Your task to perform on an android device: toggle sleep mode Image 0: 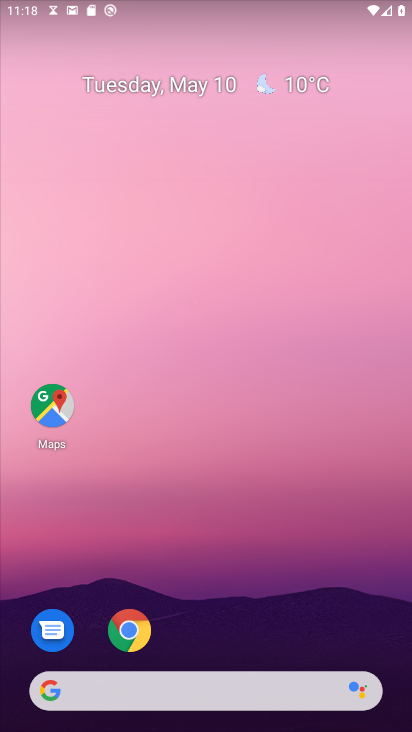
Step 0: drag from (221, 577) to (258, 56)
Your task to perform on an android device: toggle sleep mode Image 1: 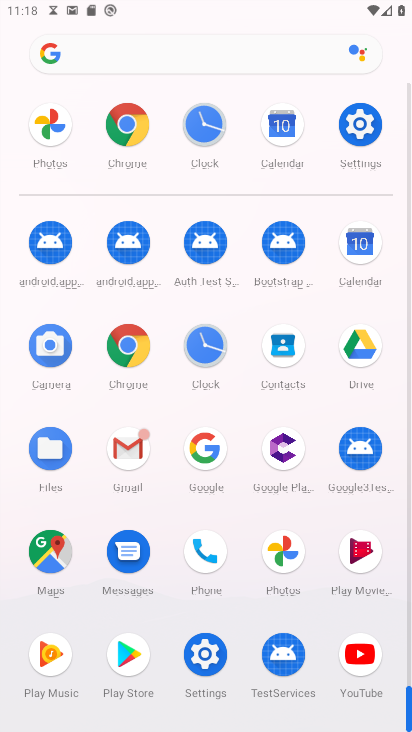
Step 1: click (363, 128)
Your task to perform on an android device: toggle sleep mode Image 2: 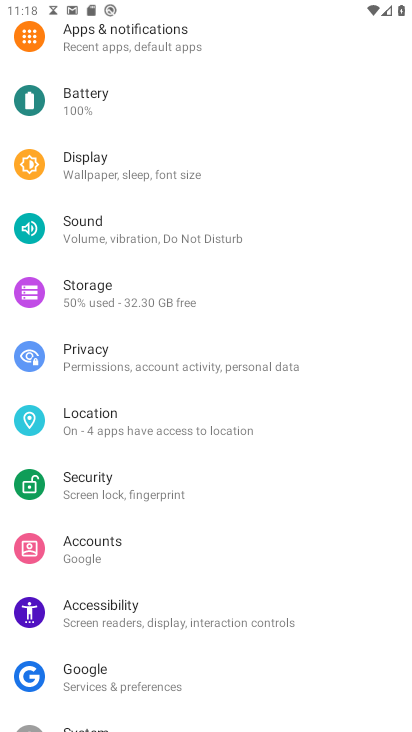
Step 2: drag from (282, 596) to (303, 255)
Your task to perform on an android device: toggle sleep mode Image 3: 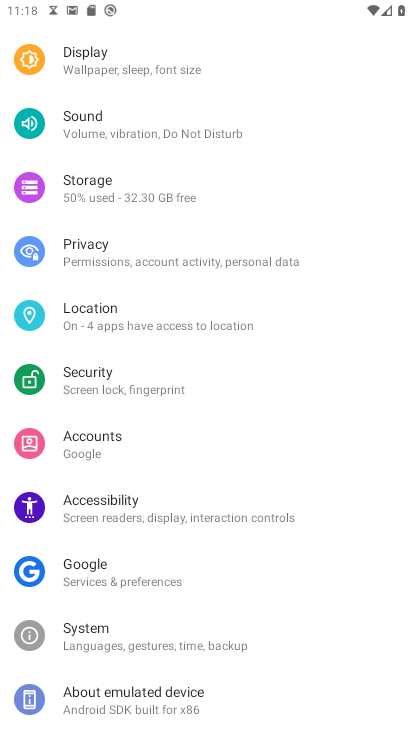
Step 3: click (135, 70)
Your task to perform on an android device: toggle sleep mode Image 4: 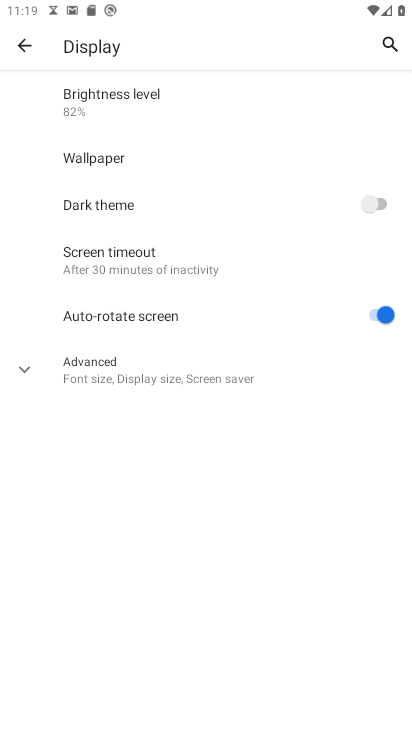
Step 4: click (169, 374)
Your task to perform on an android device: toggle sleep mode Image 5: 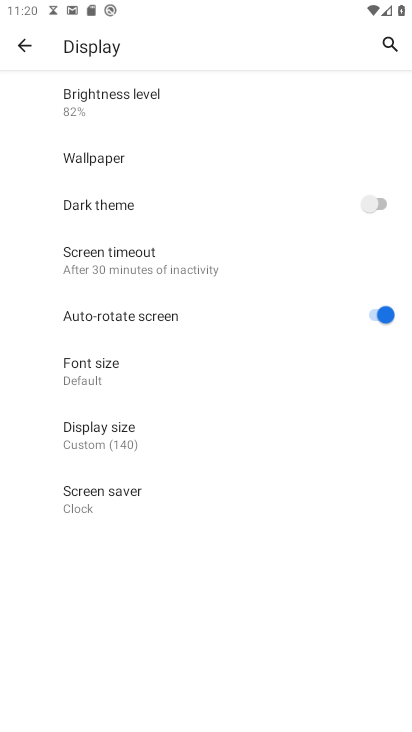
Step 5: task complete